Your task to perform on an android device: open app "Lyft - Rideshare, Bikes, Scooters & Transit" (install if not already installed), go to login, and select forgot password Image 0: 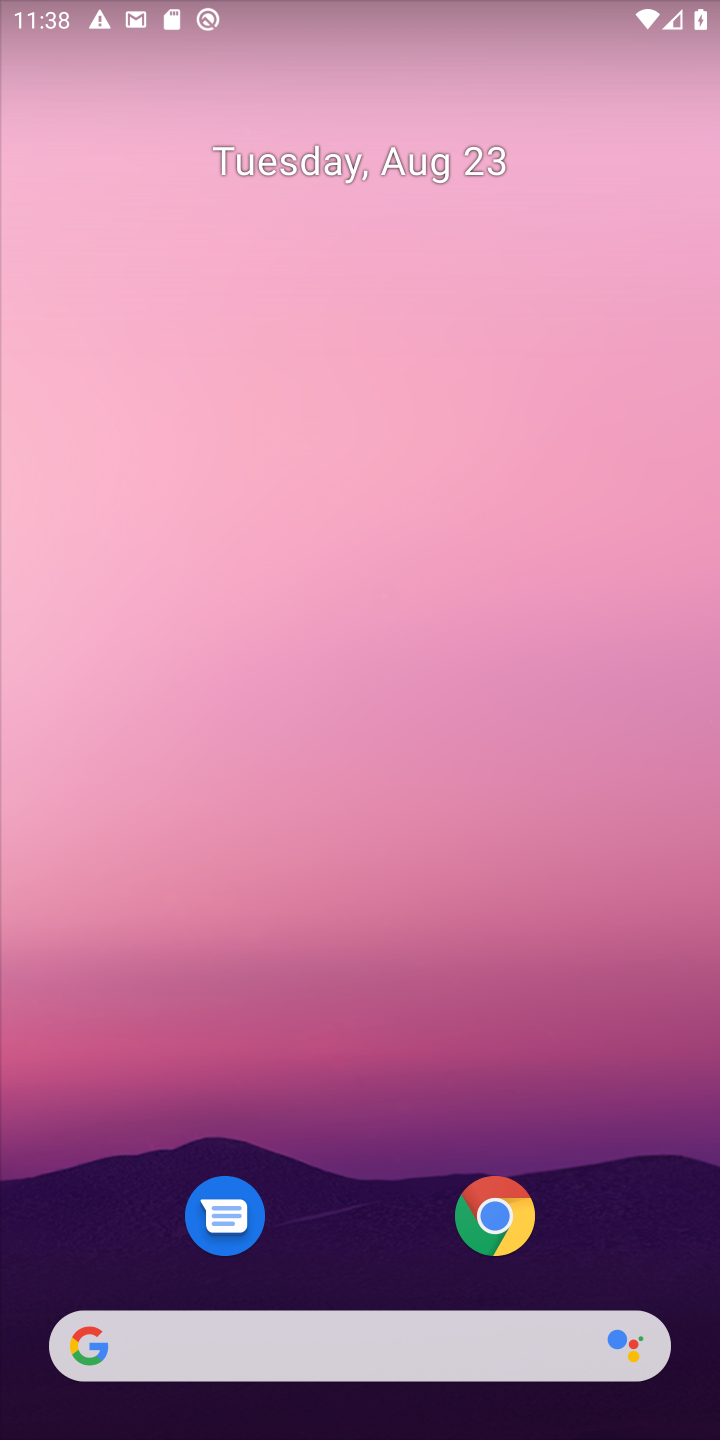
Step 0: drag from (307, 1343) to (602, 130)
Your task to perform on an android device: open app "Lyft - Rideshare, Bikes, Scooters & Transit" (install if not already installed), go to login, and select forgot password Image 1: 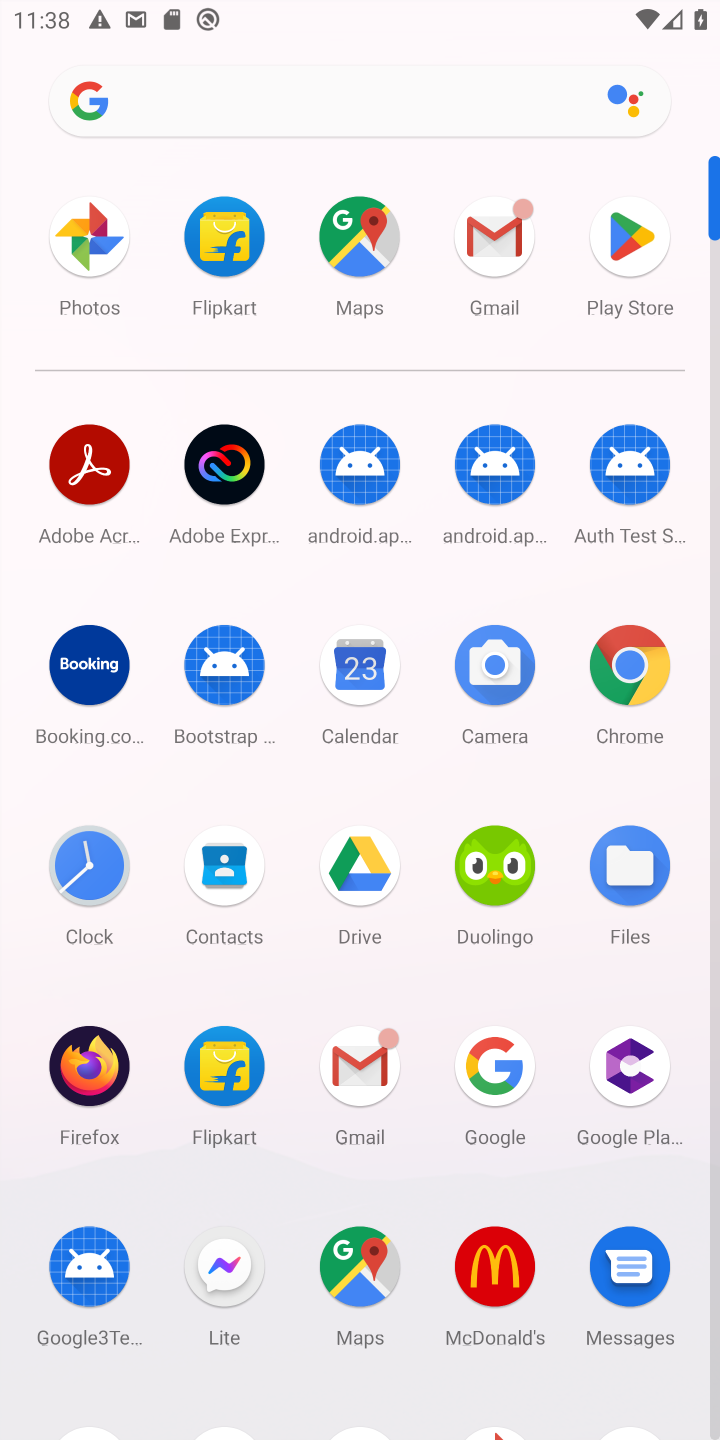
Step 1: click (635, 239)
Your task to perform on an android device: open app "Lyft - Rideshare, Bikes, Scooters & Transit" (install if not already installed), go to login, and select forgot password Image 2: 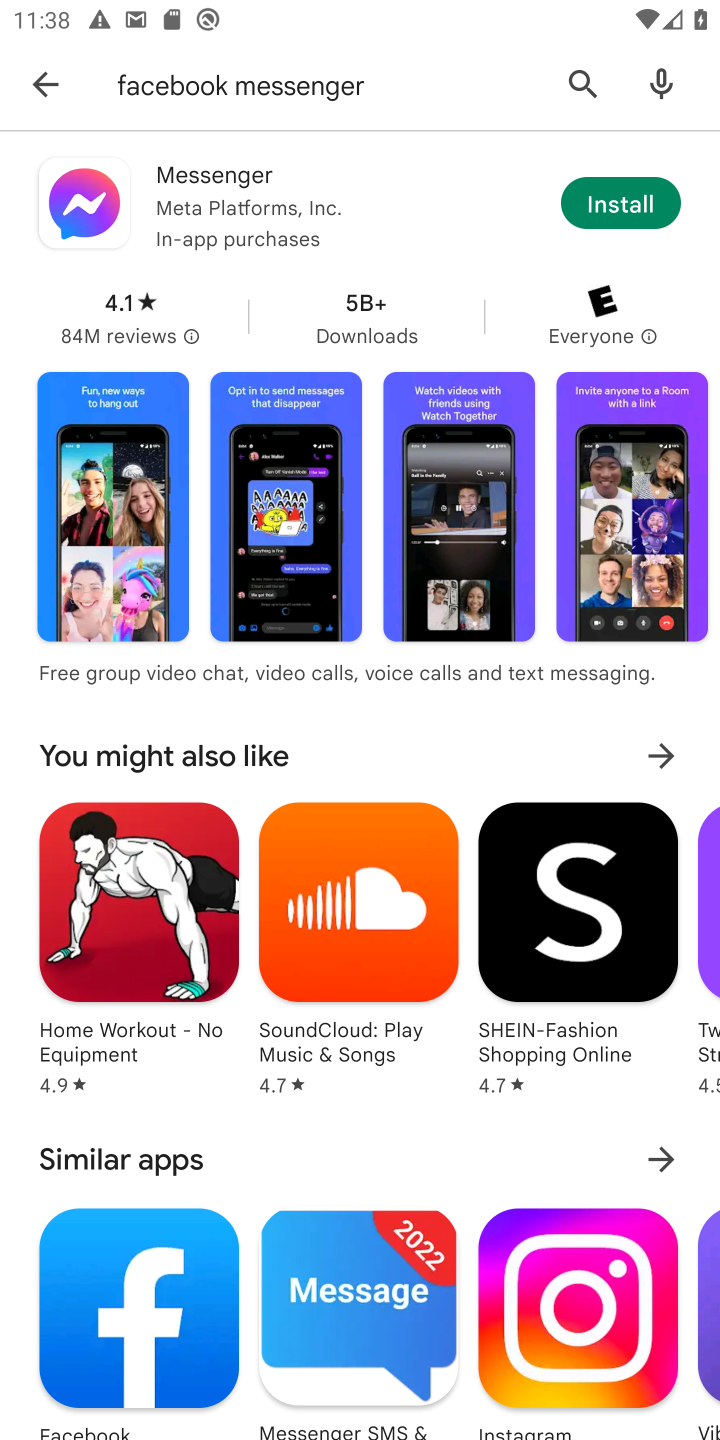
Step 2: press back button
Your task to perform on an android device: open app "Lyft - Rideshare, Bikes, Scooters & Transit" (install if not already installed), go to login, and select forgot password Image 3: 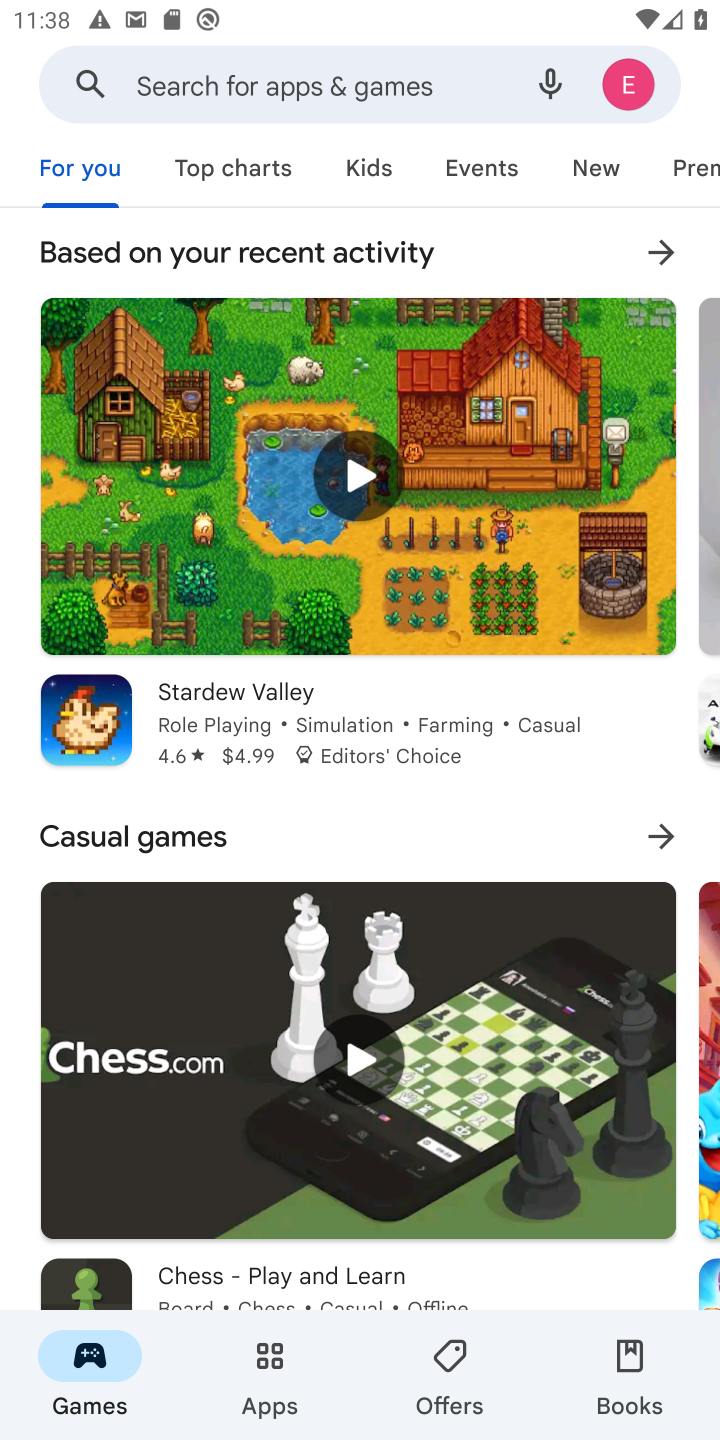
Step 3: click (303, 83)
Your task to perform on an android device: open app "Lyft - Rideshare, Bikes, Scooters & Transit" (install if not already installed), go to login, and select forgot password Image 4: 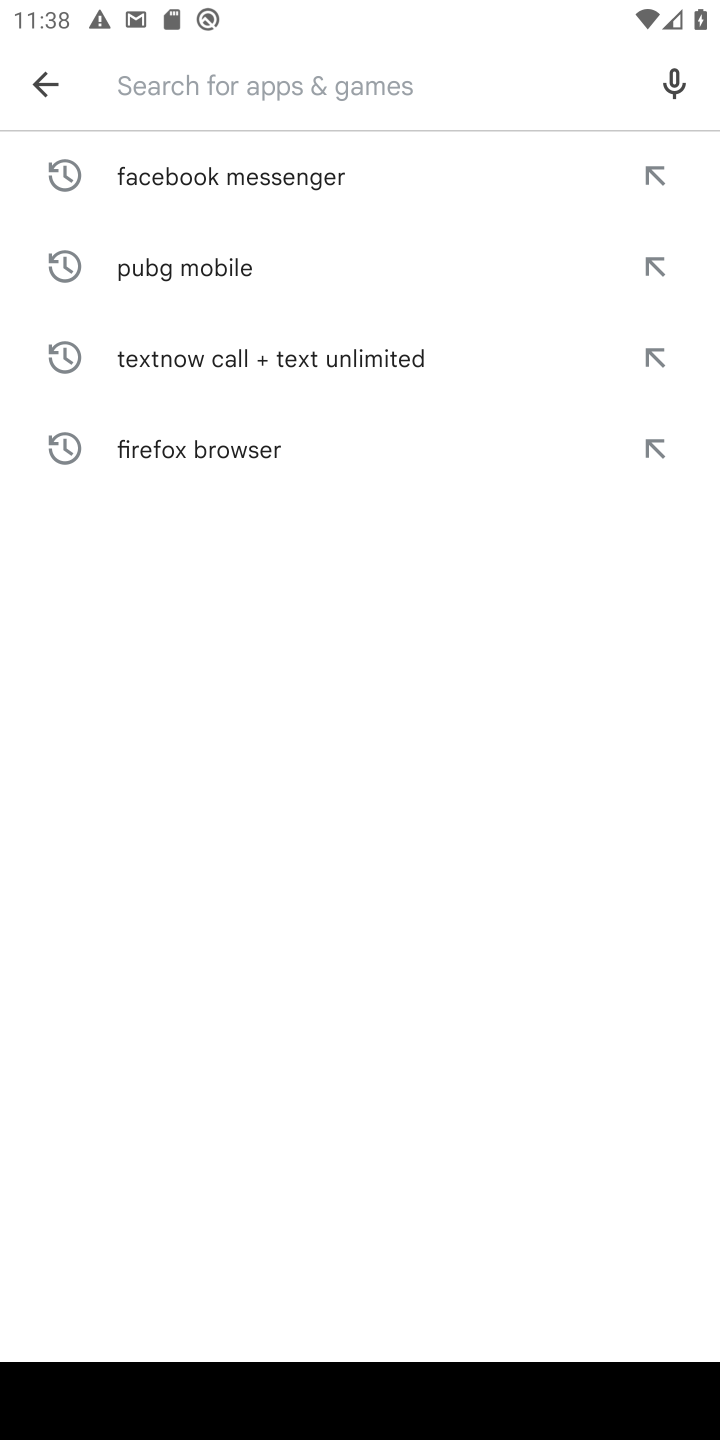
Step 4: type "Lyft - Rideshare, Bikes, Scooters & Transit"
Your task to perform on an android device: open app "Lyft - Rideshare, Bikes, Scooters & Transit" (install if not already installed), go to login, and select forgot password Image 5: 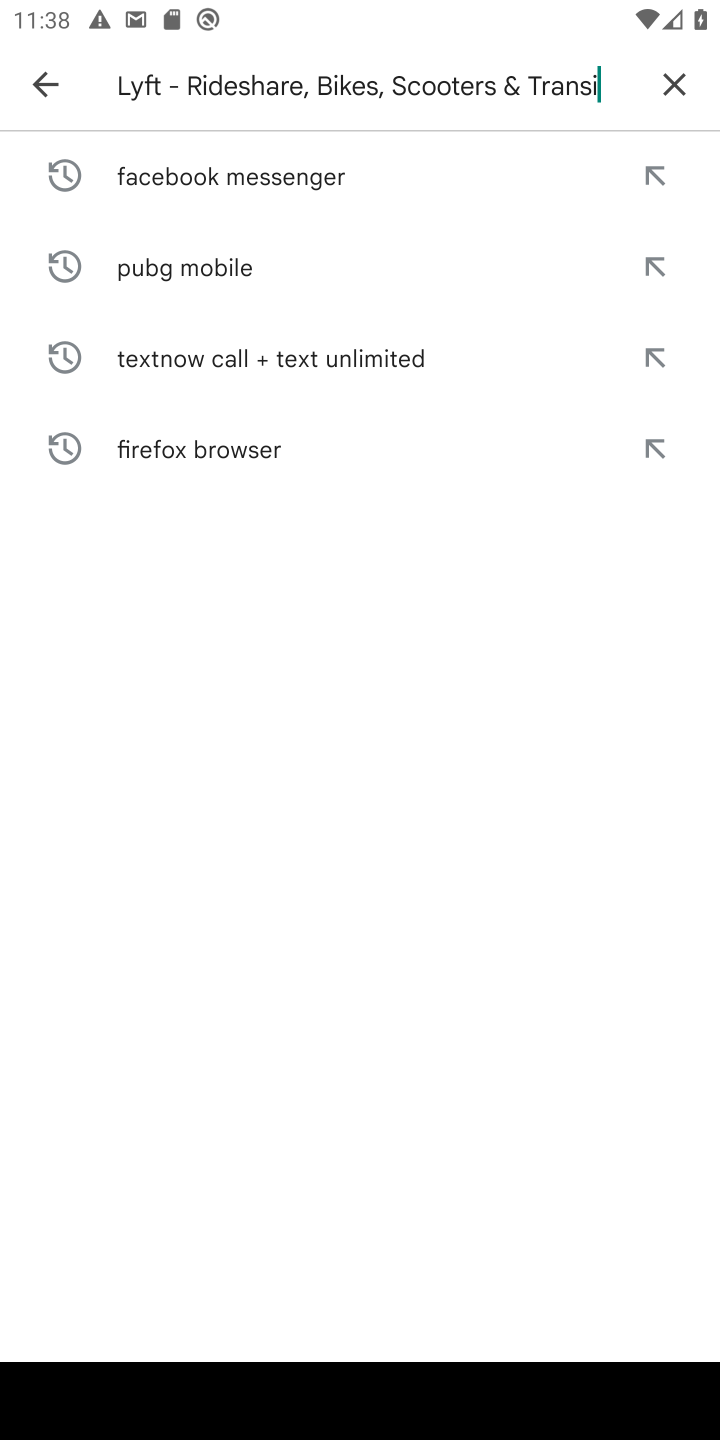
Step 5: type ""
Your task to perform on an android device: open app "Lyft - Rideshare, Bikes, Scooters & Transit" (install if not already installed), go to login, and select forgot password Image 6: 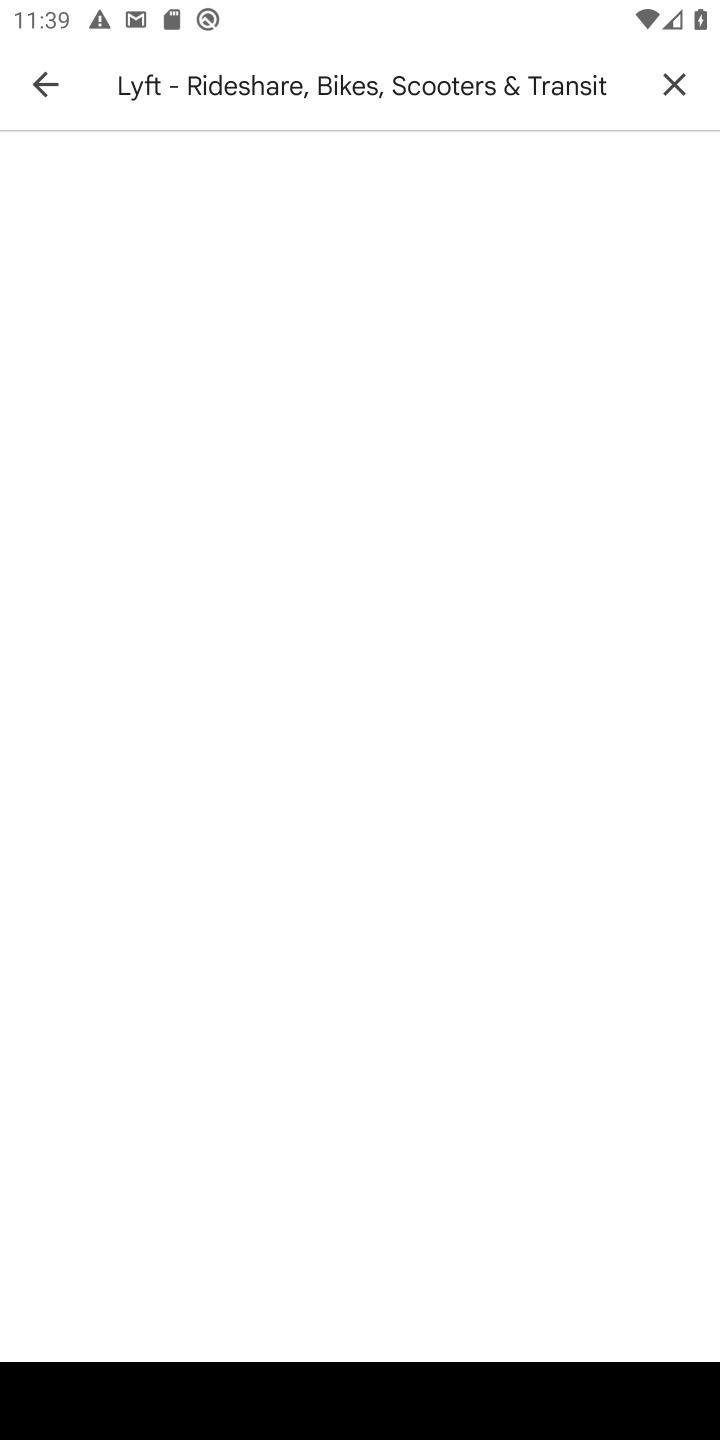
Step 6: task complete